Your task to perform on an android device: check the backup settings in the google photos Image 0: 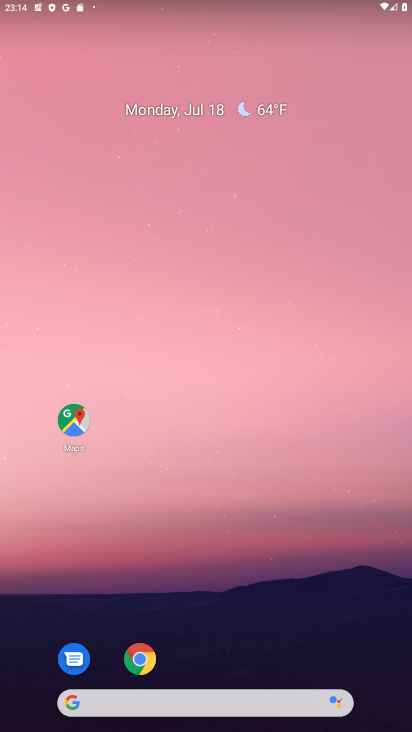
Step 0: press home button
Your task to perform on an android device: check the backup settings in the google photos Image 1: 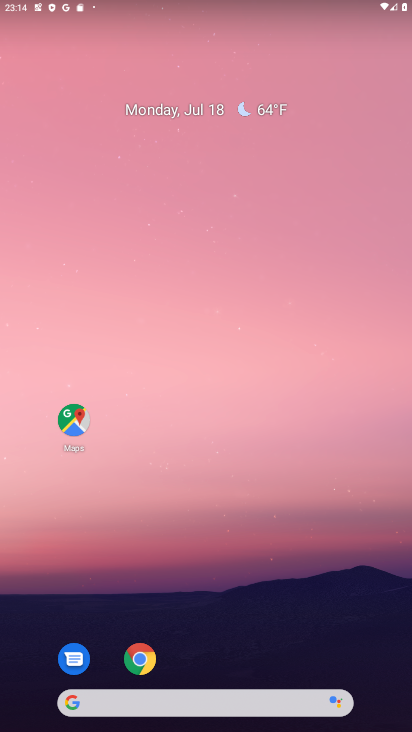
Step 1: drag from (317, 628) to (307, 0)
Your task to perform on an android device: check the backup settings in the google photos Image 2: 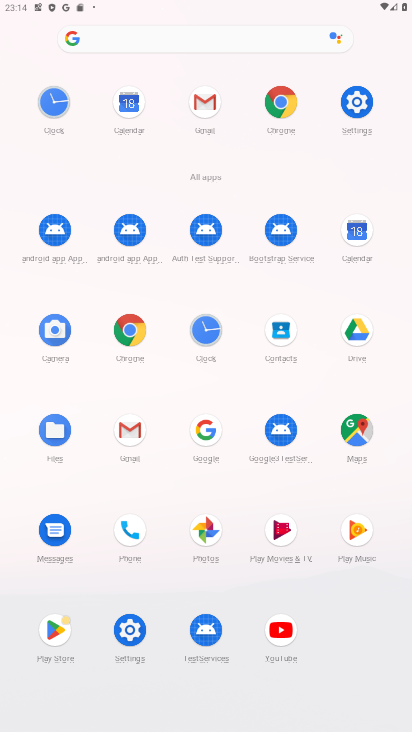
Step 2: click (198, 549)
Your task to perform on an android device: check the backup settings in the google photos Image 3: 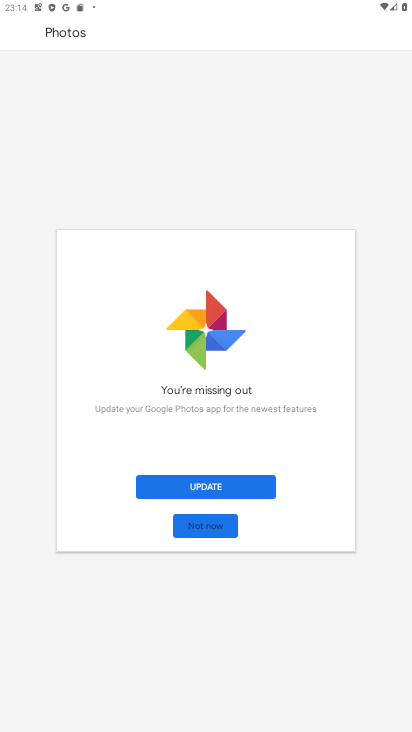
Step 3: click (203, 477)
Your task to perform on an android device: check the backup settings in the google photos Image 4: 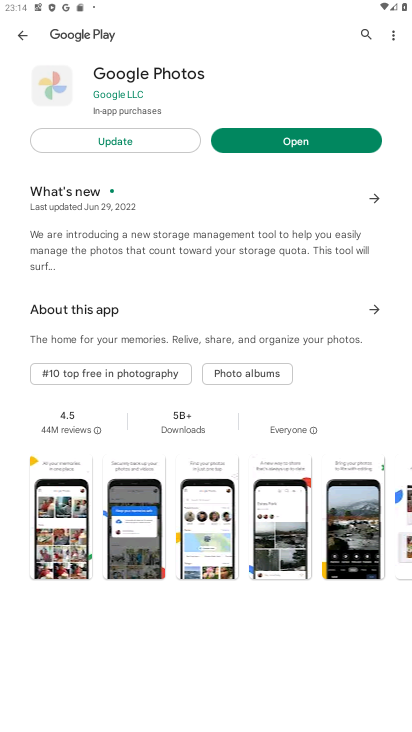
Step 4: click (132, 140)
Your task to perform on an android device: check the backup settings in the google photos Image 5: 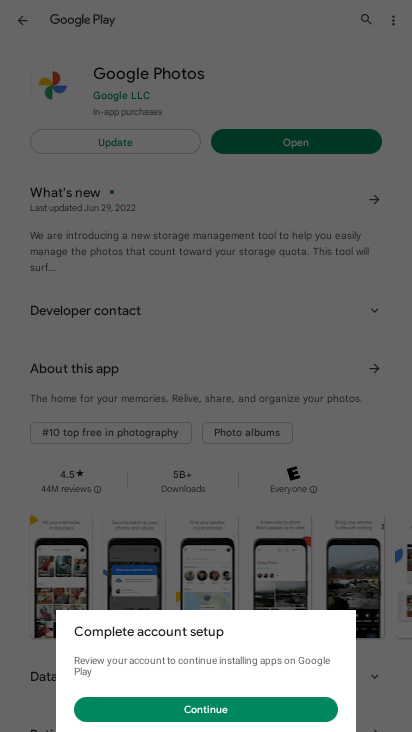
Step 5: click (223, 716)
Your task to perform on an android device: check the backup settings in the google photos Image 6: 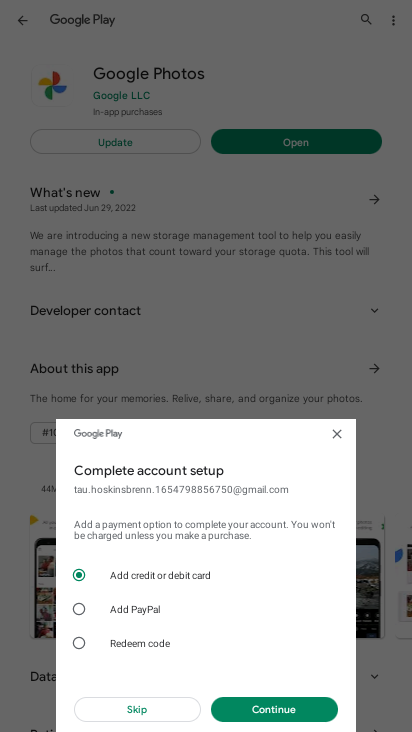
Step 6: click (141, 701)
Your task to perform on an android device: check the backup settings in the google photos Image 7: 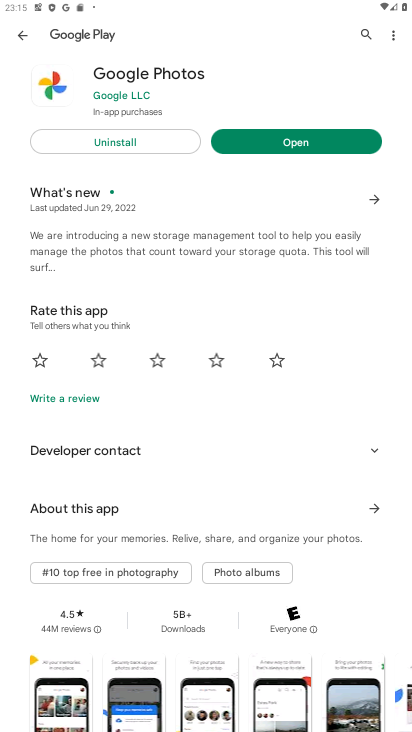
Step 7: click (324, 146)
Your task to perform on an android device: check the backup settings in the google photos Image 8: 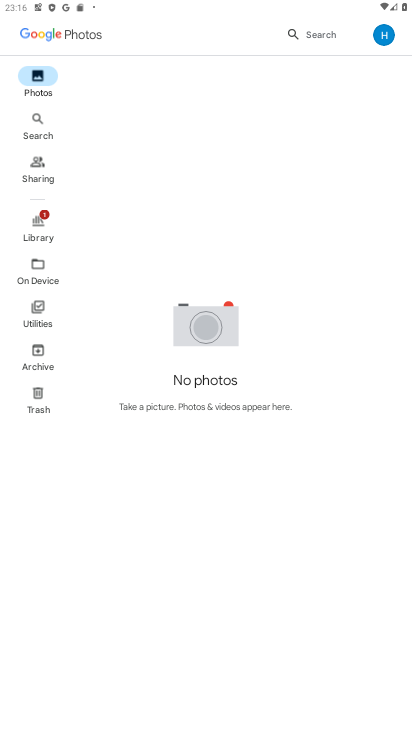
Step 8: click (372, 32)
Your task to perform on an android device: check the backup settings in the google photos Image 9: 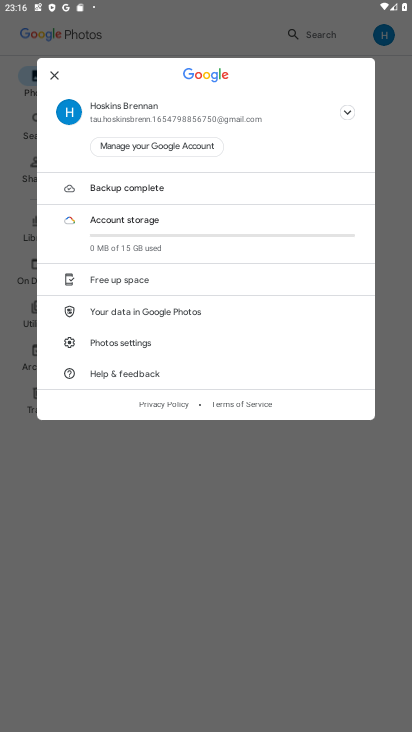
Step 9: click (113, 352)
Your task to perform on an android device: check the backup settings in the google photos Image 10: 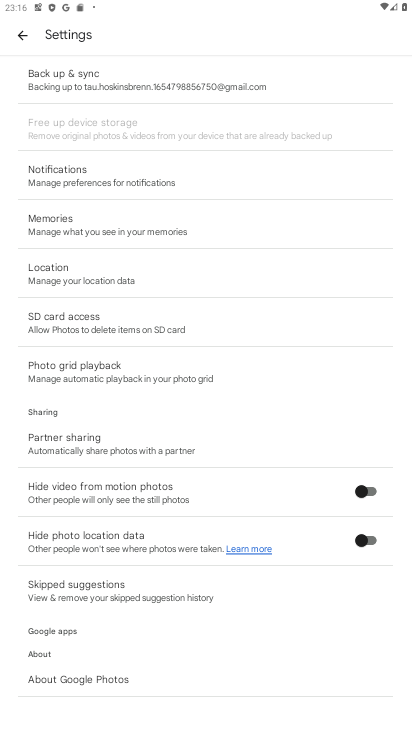
Step 10: click (53, 67)
Your task to perform on an android device: check the backup settings in the google photos Image 11: 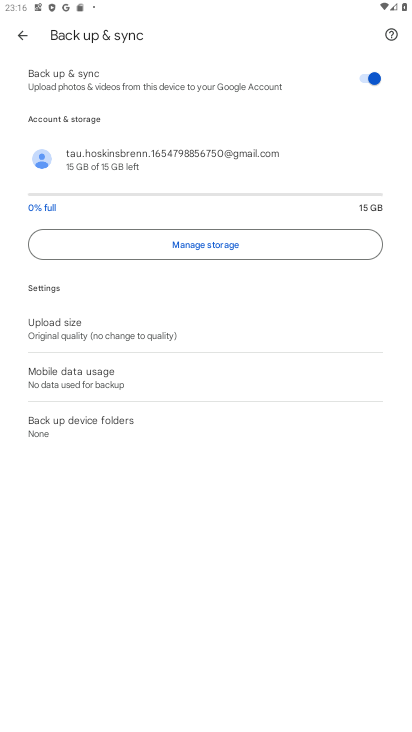
Step 11: task complete